Your task to perform on an android device: Open notification settings Image 0: 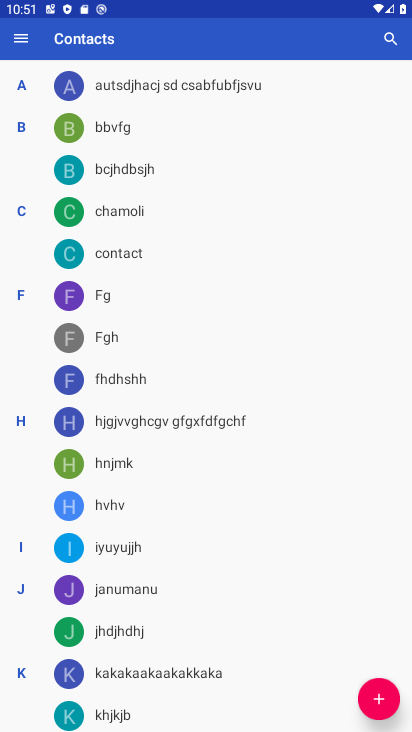
Step 0: press home button
Your task to perform on an android device: Open notification settings Image 1: 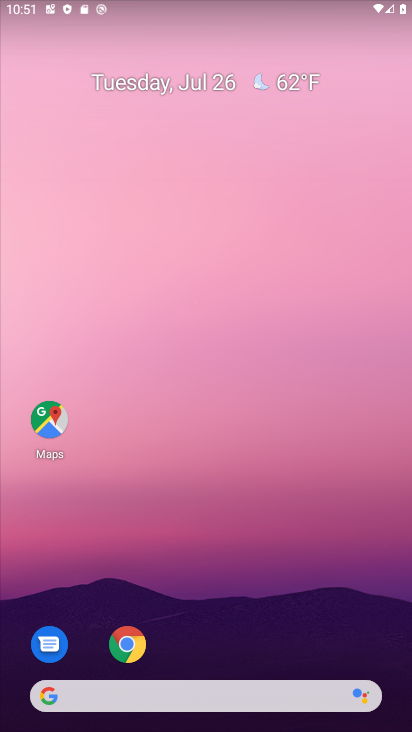
Step 1: drag from (328, 597) to (309, 327)
Your task to perform on an android device: Open notification settings Image 2: 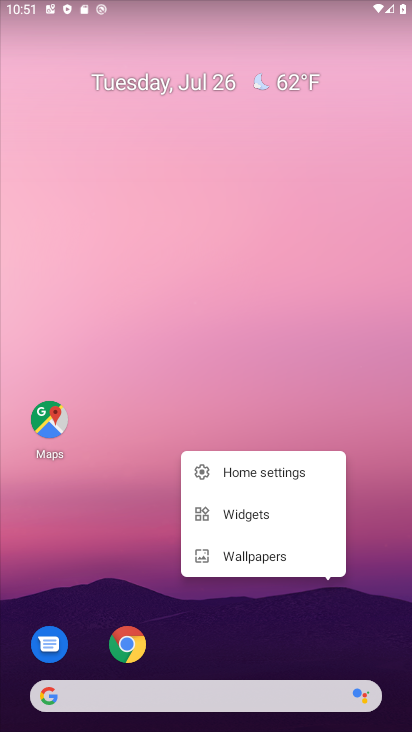
Step 2: click (139, 500)
Your task to perform on an android device: Open notification settings Image 3: 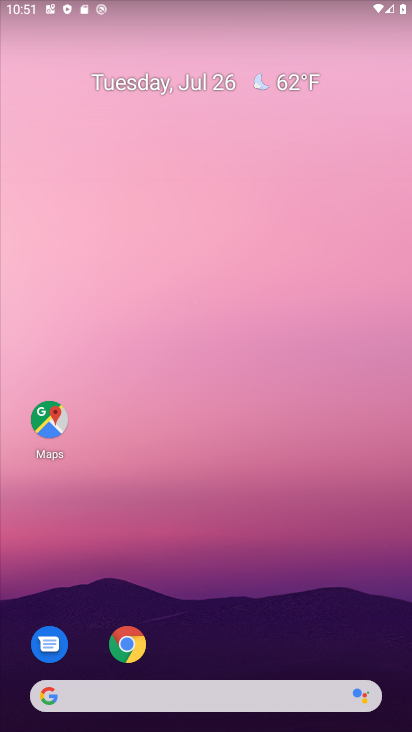
Step 3: drag from (303, 614) to (302, 266)
Your task to perform on an android device: Open notification settings Image 4: 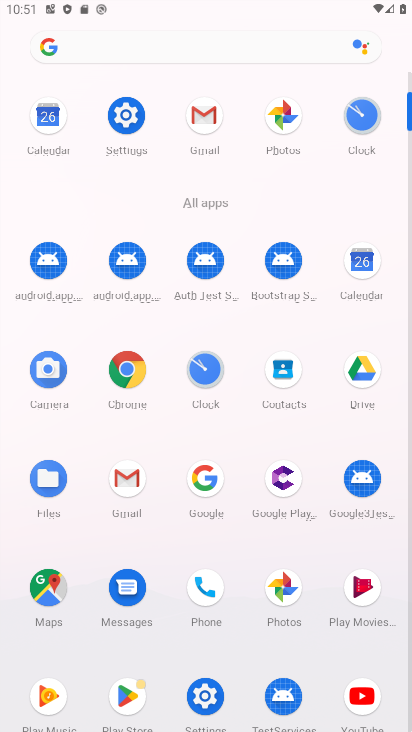
Step 4: click (198, 696)
Your task to perform on an android device: Open notification settings Image 5: 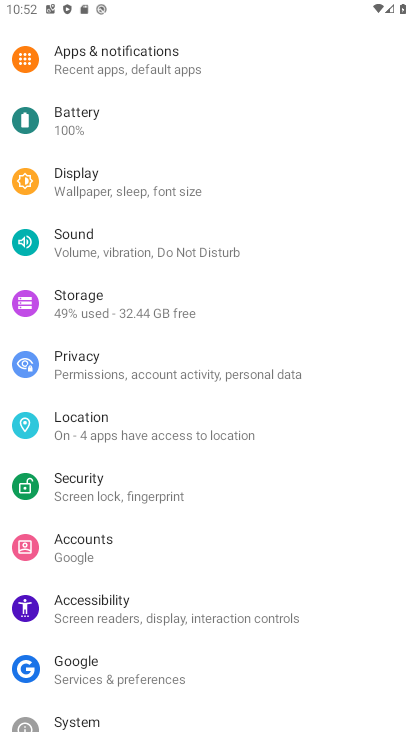
Step 5: click (149, 71)
Your task to perform on an android device: Open notification settings Image 6: 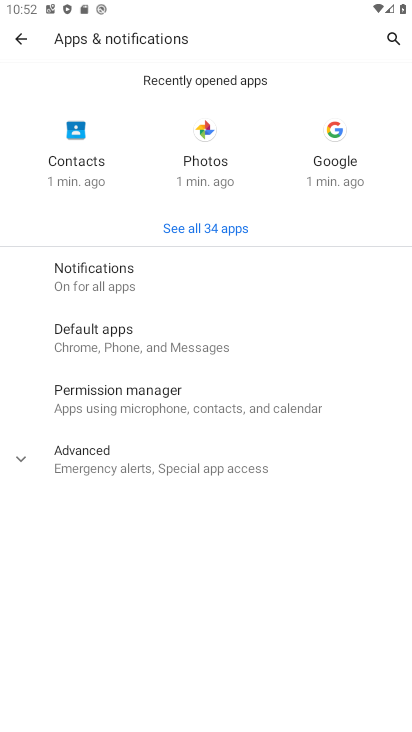
Step 6: click (164, 269)
Your task to perform on an android device: Open notification settings Image 7: 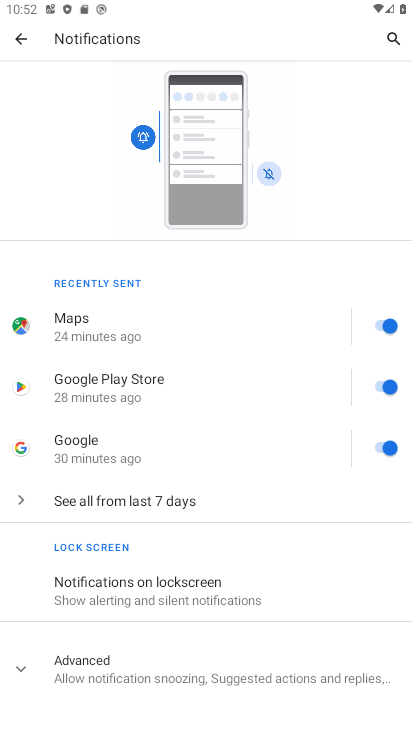
Step 7: task complete